Your task to perform on an android device: Go to Amazon Image 0: 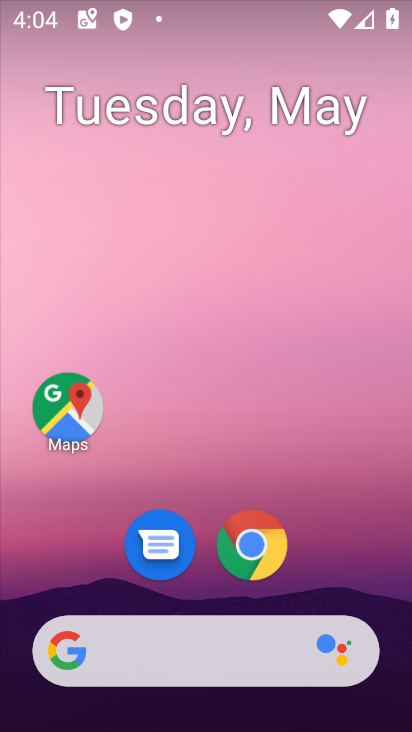
Step 0: click (251, 542)
Your task to perform on an android device: Go to Amazon Image 1: 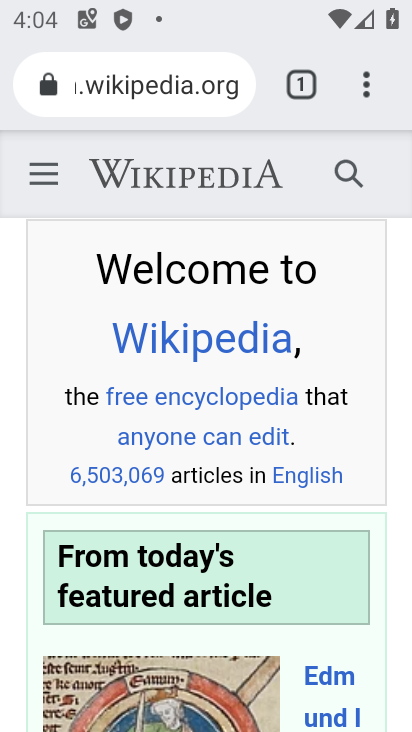
Step 1: click (223, 91)
Your task to perform on an android device: Go to Amazon Image 2: 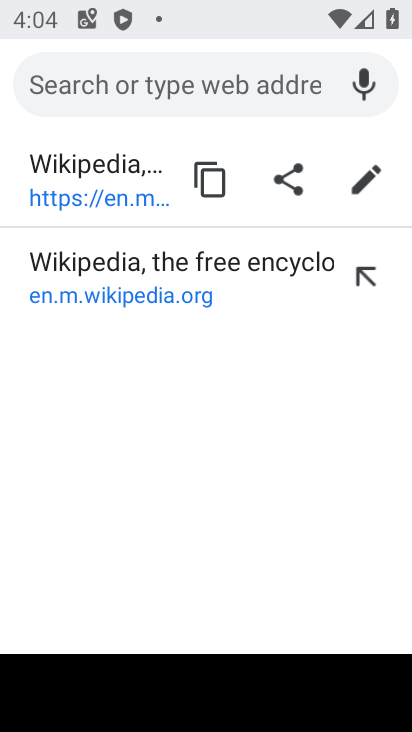
Step 2: type "Amazon"
Your task to perform on an android device: Go to Amazon Image 3: 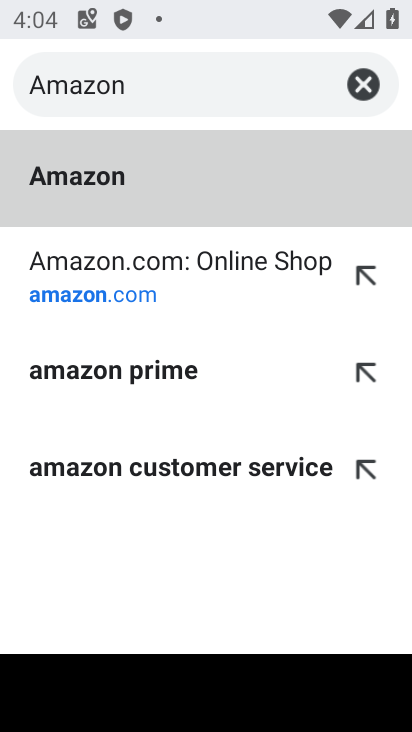
Step 3: click (235, 162)
Your task to perform on an android device: Go to Amazon Image 4: 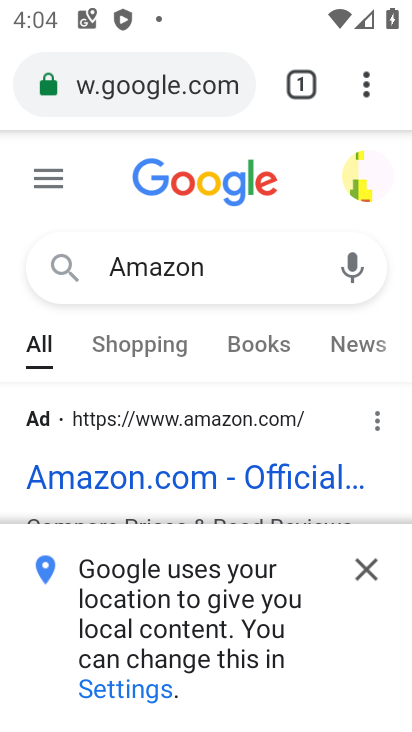
Step 4: click (273, 471)
Your task to perform on an android device: Go to Amazon Image 5: 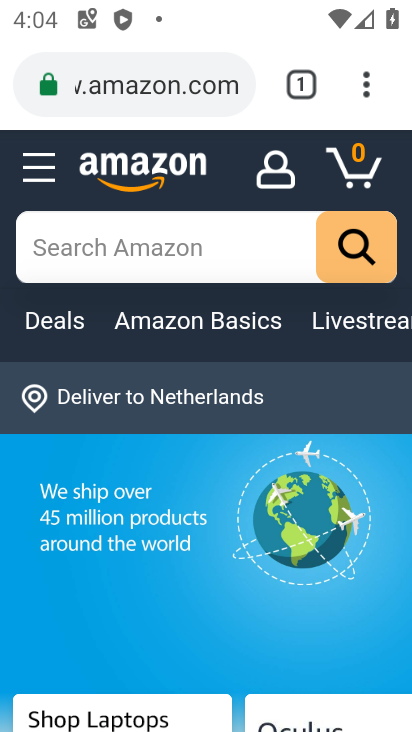
Step 5: task complete